Your task to perform on an android device: Find coffee shops on Maps Image 0: 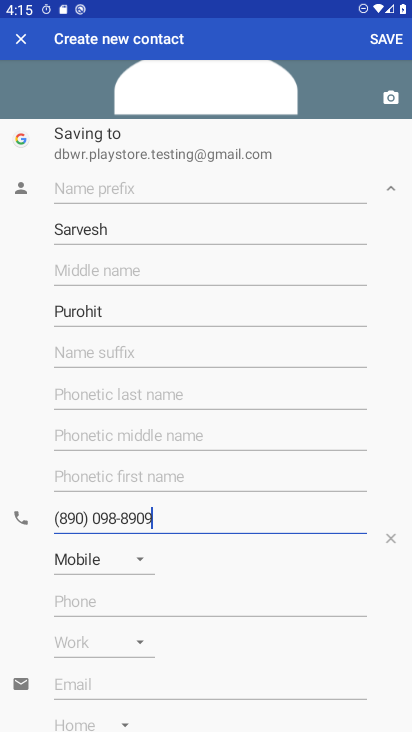
Step 0: press home button
Your task to perform on an android device: Find coffee shops on Maps Image 1: 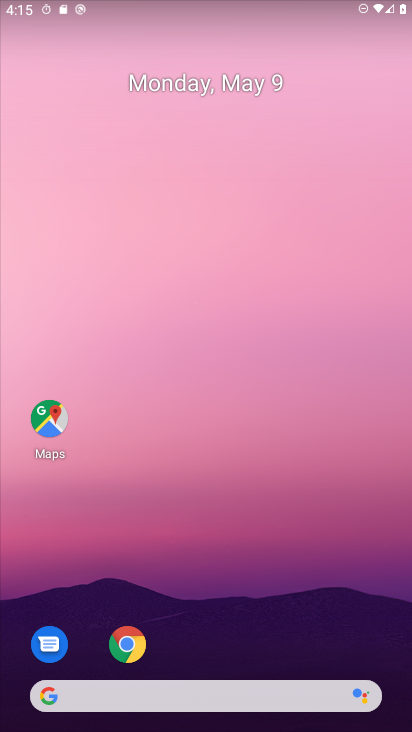
Step 1: drag from (219, 629) to (194, 135)
Your task to perform on an android device: Find coffee shops on Maps Image 2: 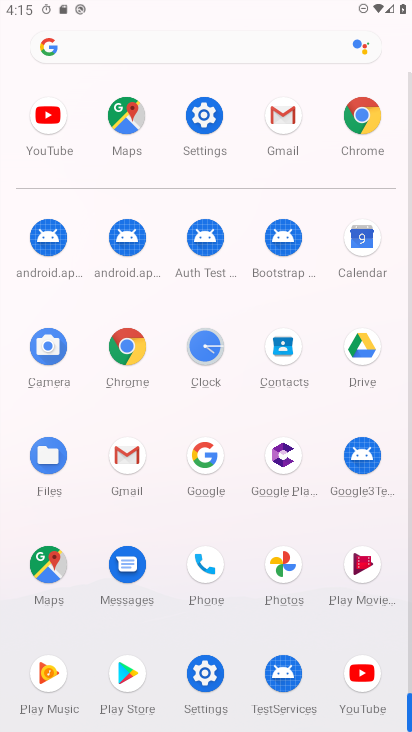
Step 2: click (61, 572)
Your task to perform on an android device: Find coffee shops on Maps Image 3: 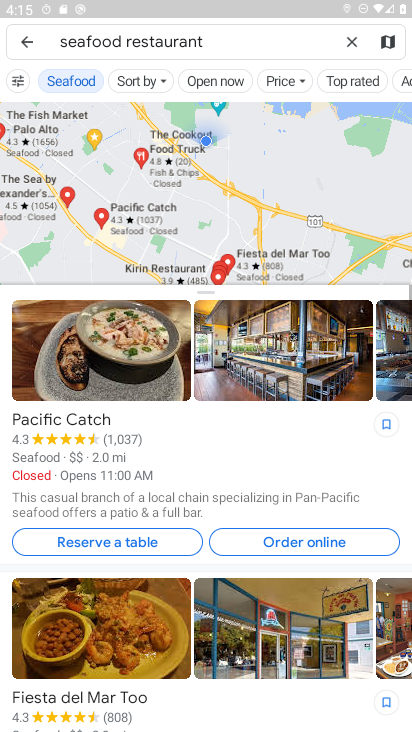
Step 3: click (346, 43)
Your task to perform on an android device: Find coffee shops on Maps Image 4: 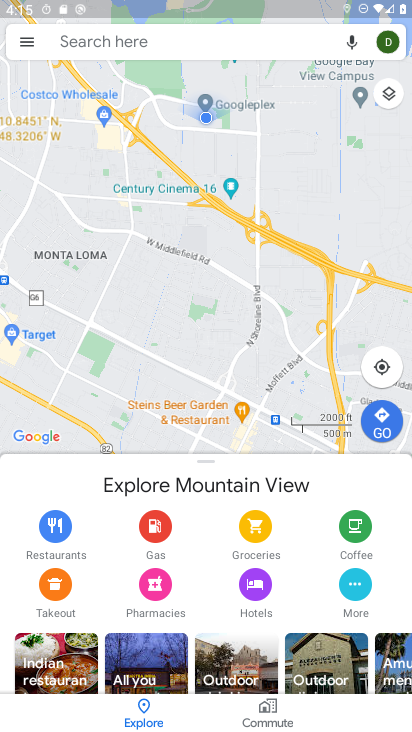
Step 4: click (173, 35)
Your task to perform on an android device: Find coffee shops on Maps Image 5: 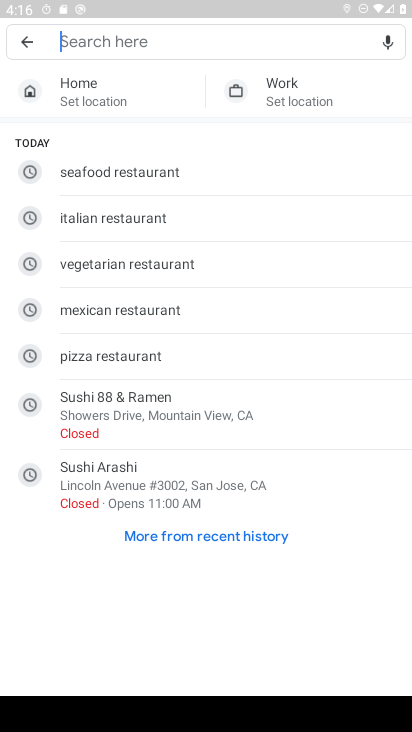
Step 5: type "coffee shops"
Your task to perform on an android device: Find coffee shops on Maps Image 6: 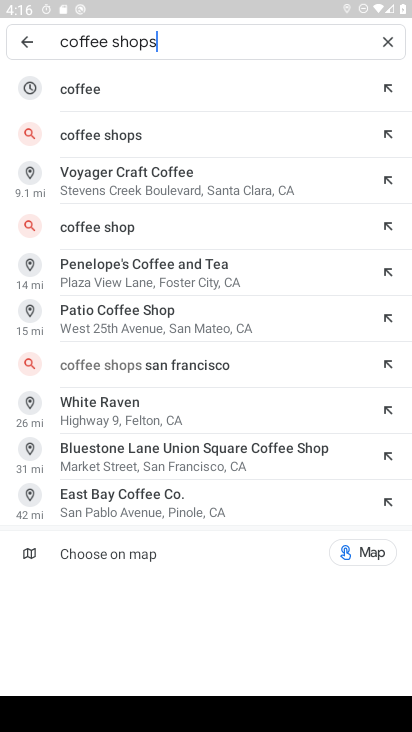
Step 6: click (97, 128)
Your task to perform on an android device: Find coffee shops on Maps Image 7: 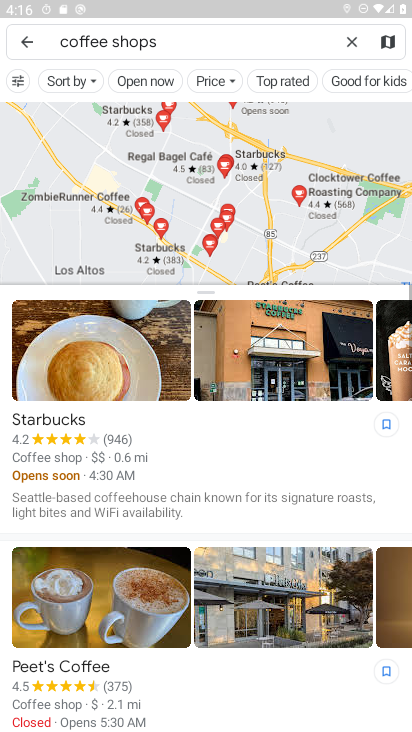
Step 7: task complete